Your task to perform on an android device: Go to Google maps Image 0: 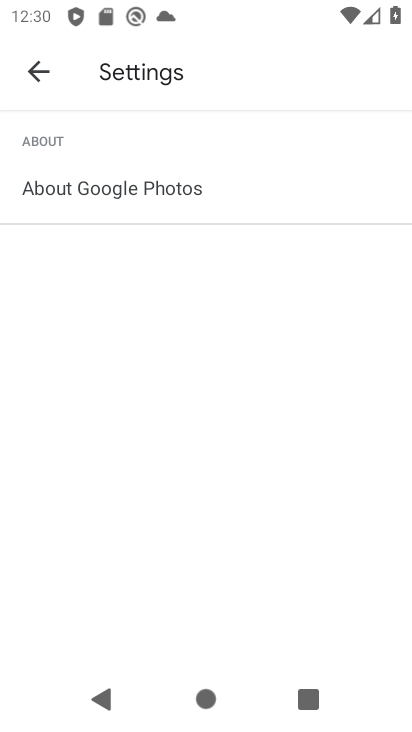
Step 0: press home button
Your task to perform on an android device: Go to Google maps Image 1: 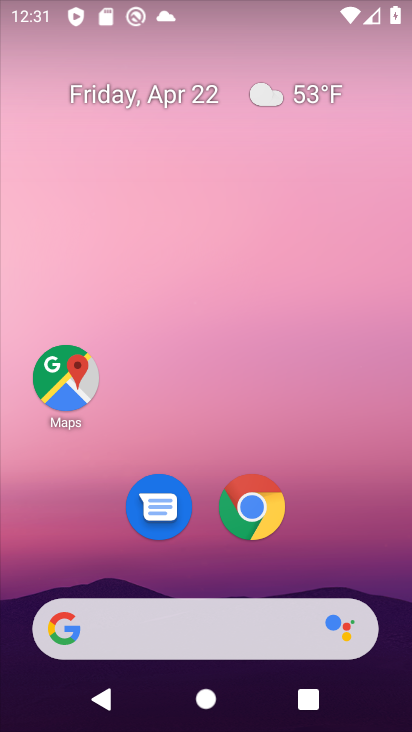
Step 1: click (78, 390)
Your task to perform on an android device: Go to Google maps Image 2: 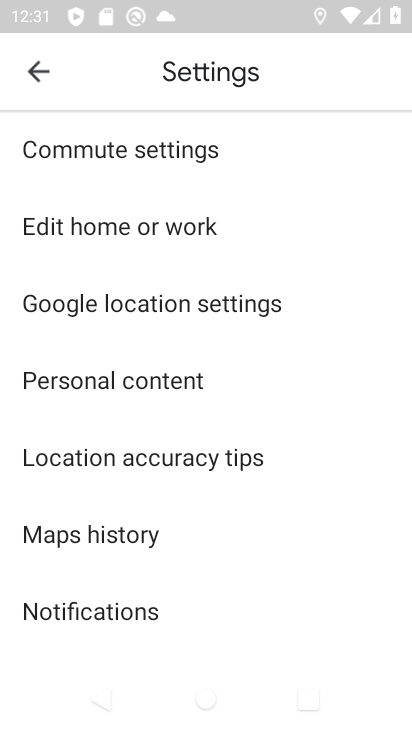
Step 2: click (42, 76)
Your task to perform on an android device: Go to Google maps Image 3: 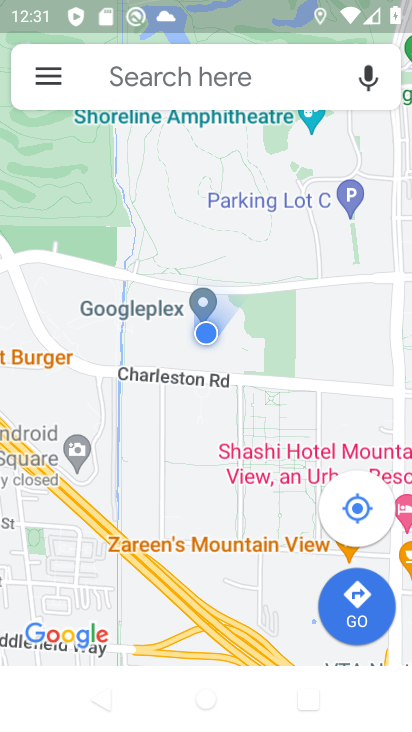
Step 3: task complete